Your task to perform on an android device: open app "Google Chat" (install if not already installed) Image 0: 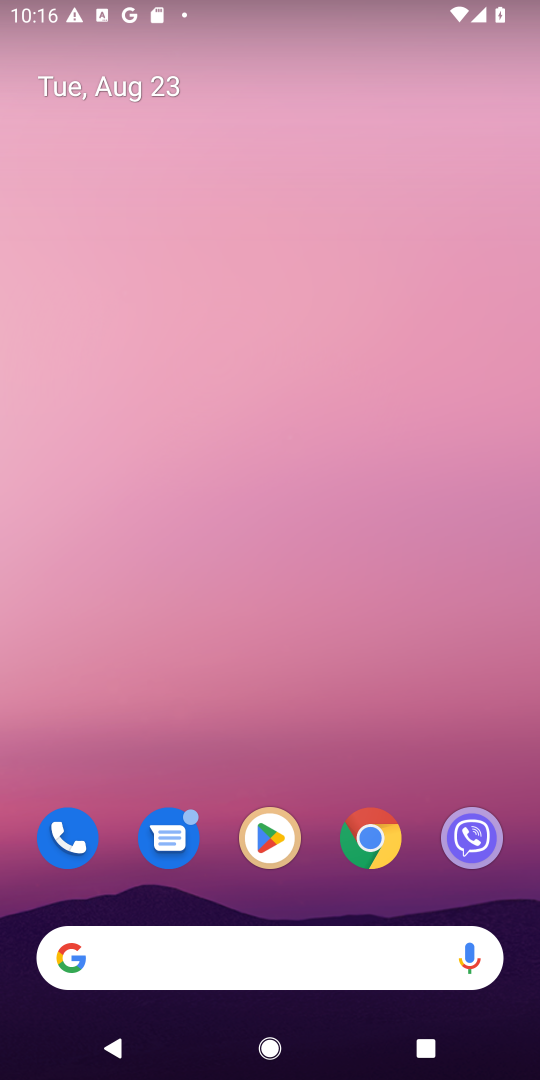
Step 0: click (267, 845)
Your task to perform on an android device: open app "Google Chat" (install if not already installed) Image 1: 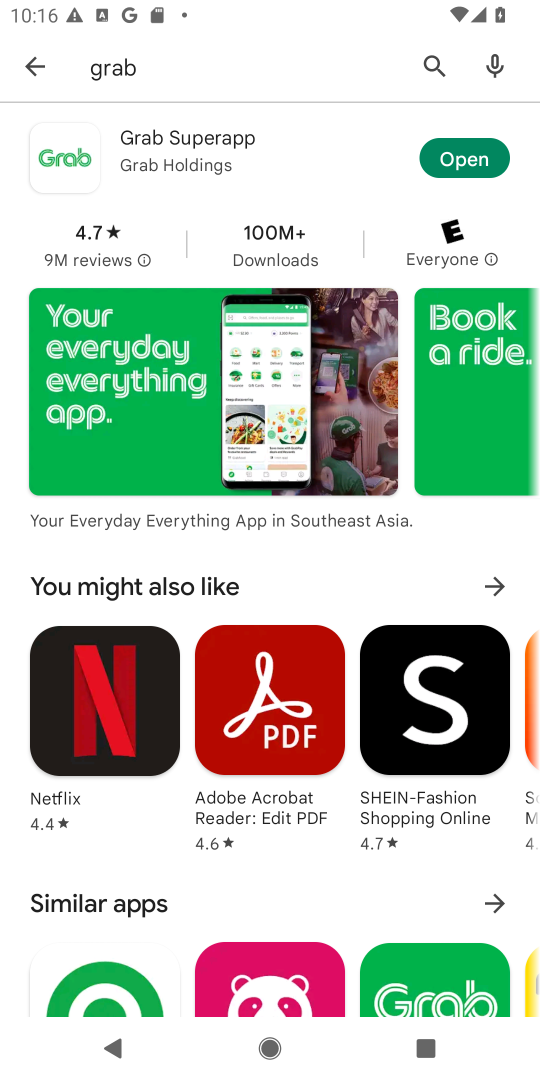
Step 1: click (427, 75)
Your task to perform on an android device: open app "Google Chat" (install if not already installed) Image 2: 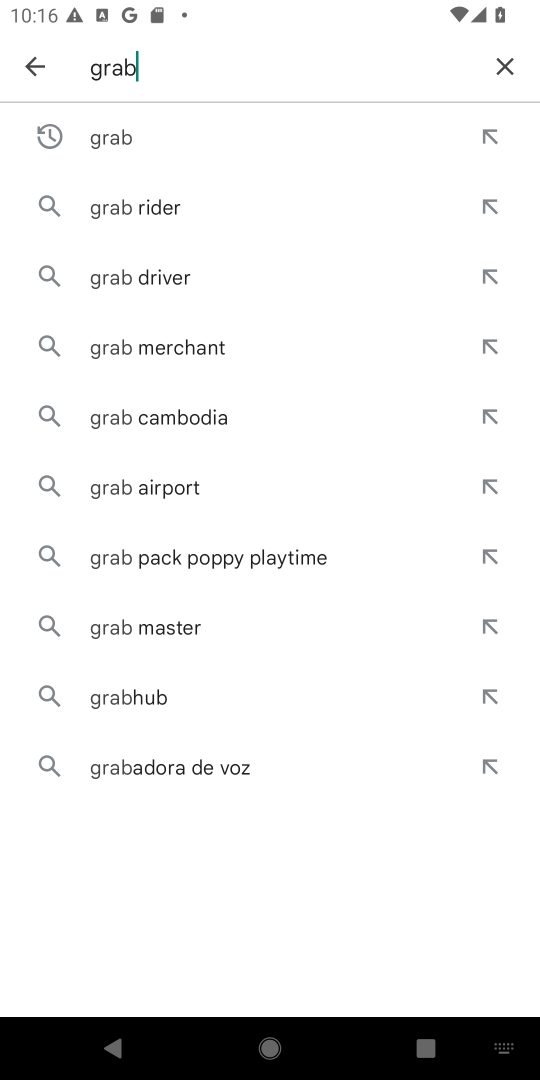
Step 2: click (508, 57)
Your task to perform on an android device: open app "Google Chat" (install if not already installed) Image 3: 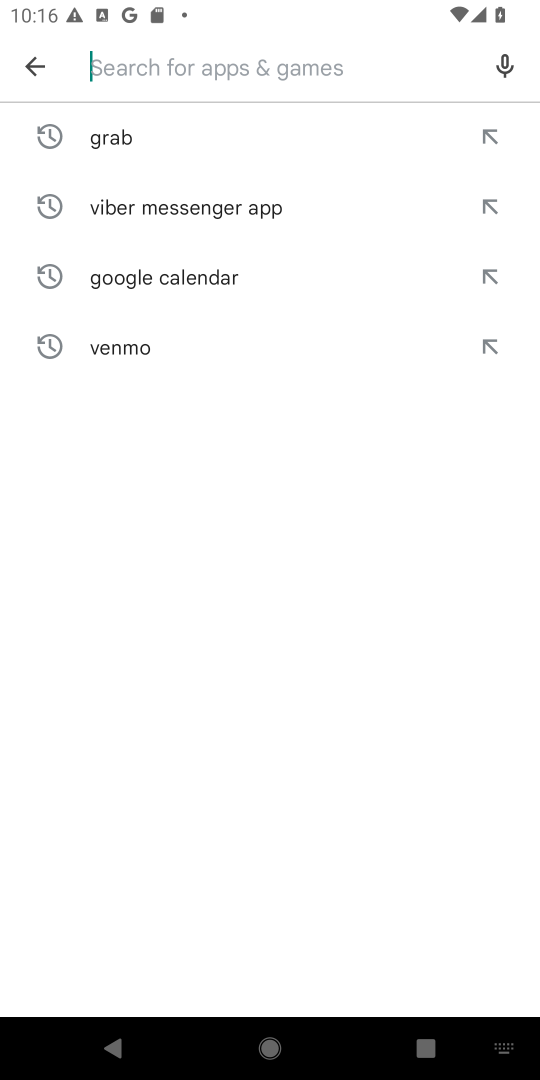
Step 3: type "Google Chat"
Your task to perform on an android device: open app "Google Chat" (install if not already installed) Image 4: 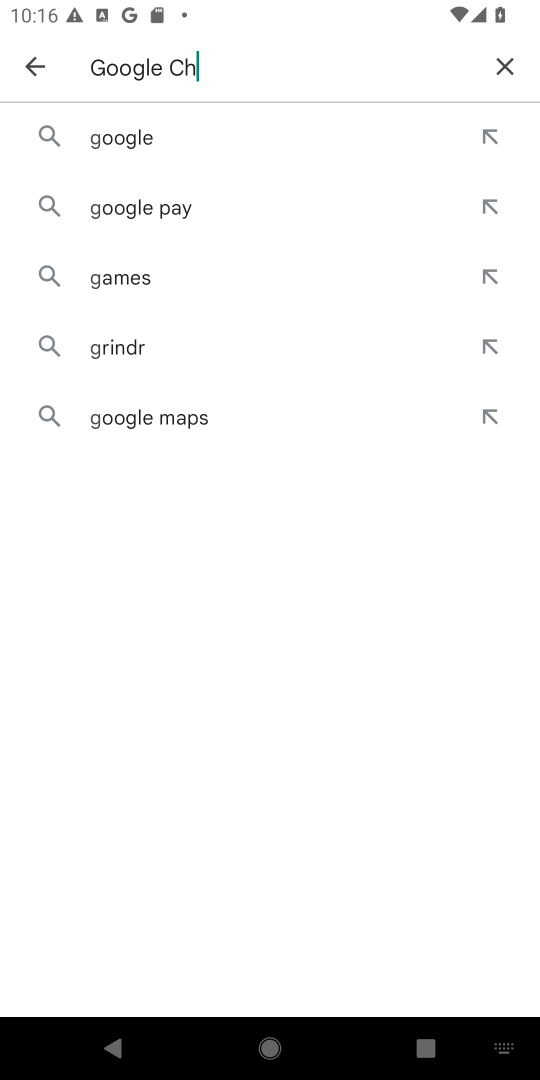
Step 4: type ""
Your task to perform on an android device: open app "Google Chat" (install if not already installed) Image 5: 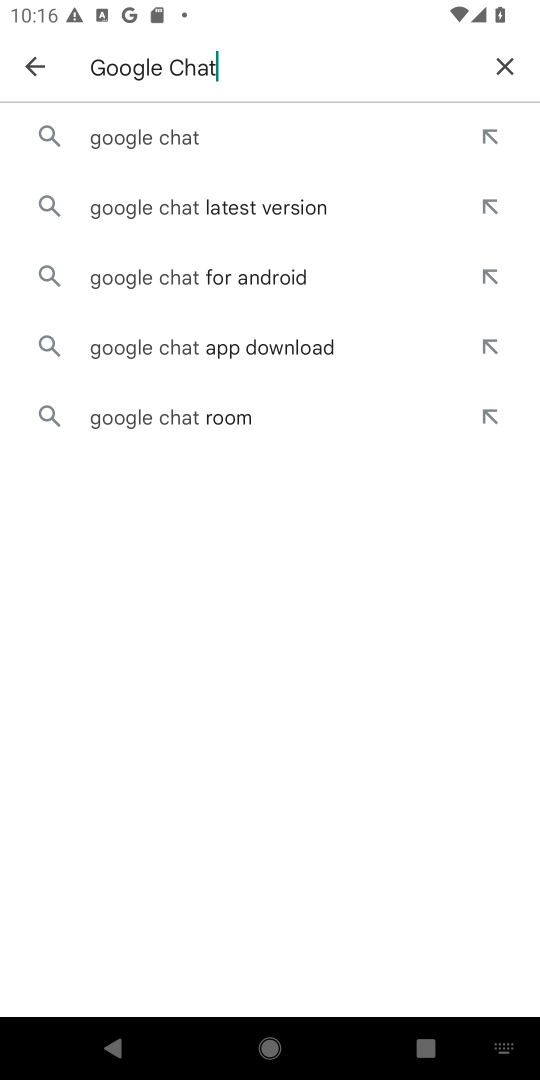
Step 5: click (228, 131)
Your task to perform on an android device: open app "Google Chat" (install if not already installed) Image 6: 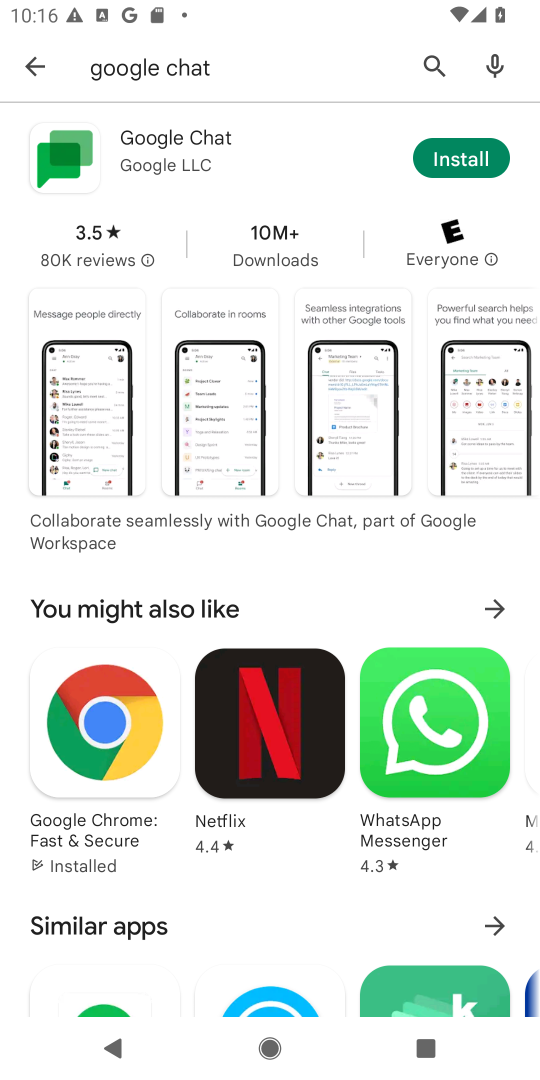
Step 6: click (462, 170)
Your task to perform on an android device: open app "Google Chat" (install if not already installed) Image 7: 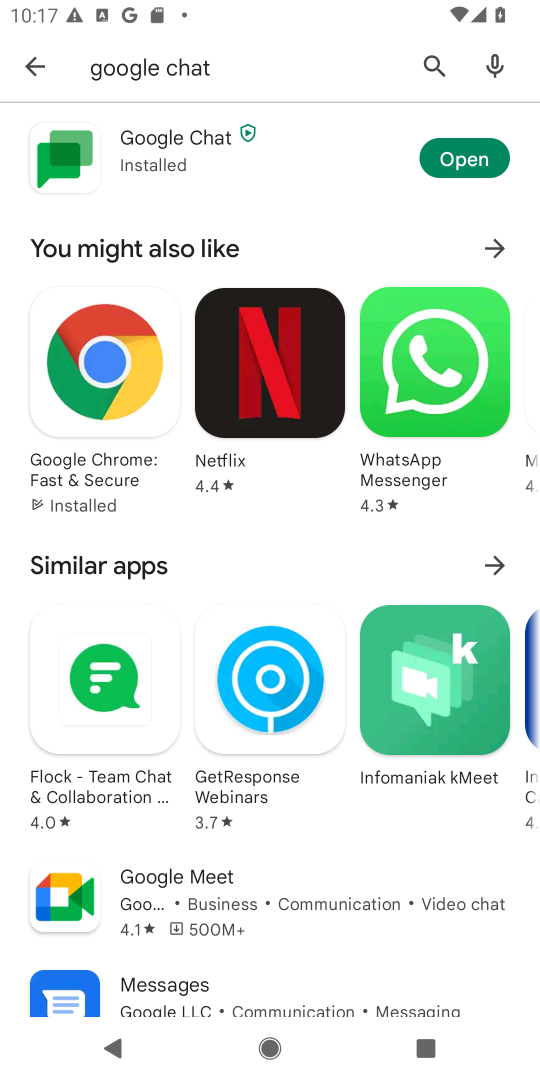
Step 7: click (462, 170)
Your task to perform on an android device: open app "Google Chat" (install if not already installed) Image 8: 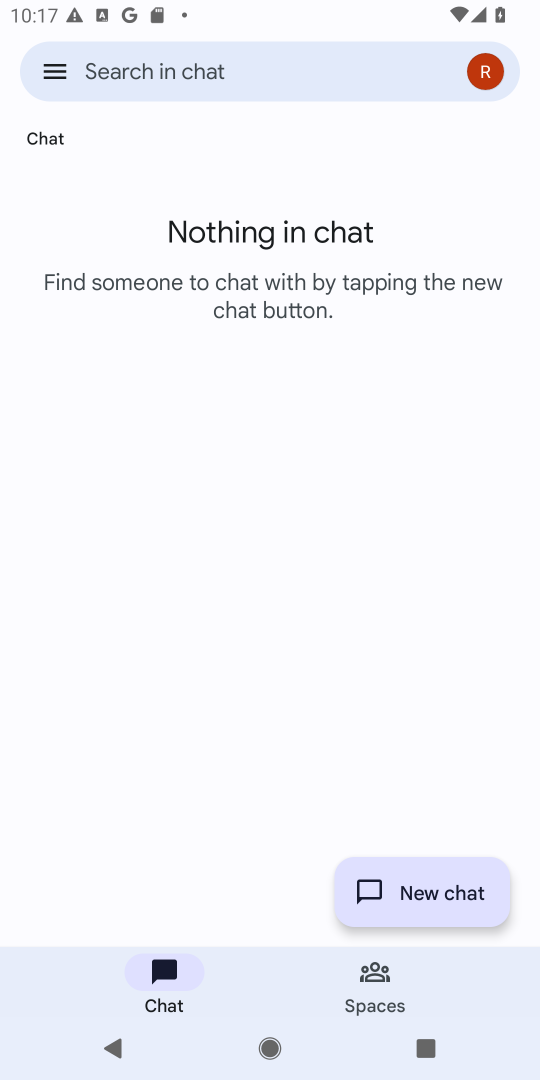
Step 8: task complete